Your task to perform on an android device: Open privacy settings Image 0: 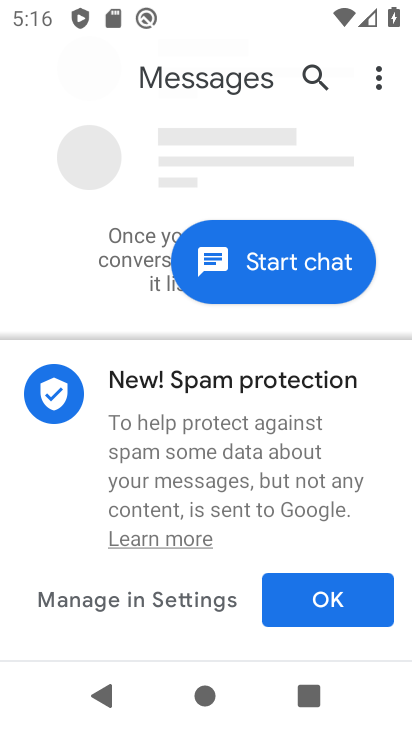
Step 0: press home button
Your task to perform on an android device: Open privacy settings Image 1: 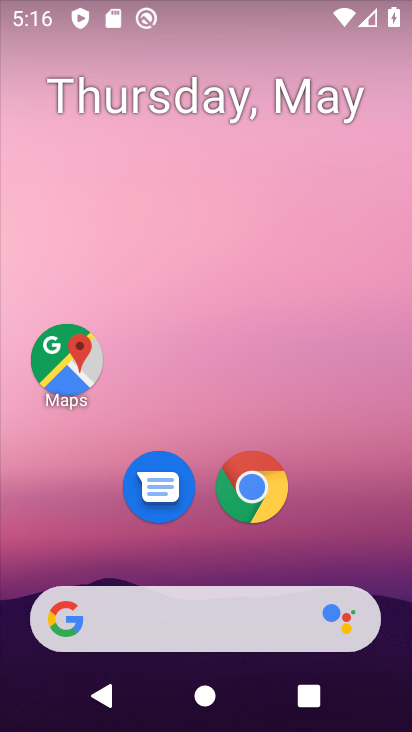
Step 1: drag from (308, 527) to (309, 66)
Your task to perform on an android device: Open privacy settings Image 2: 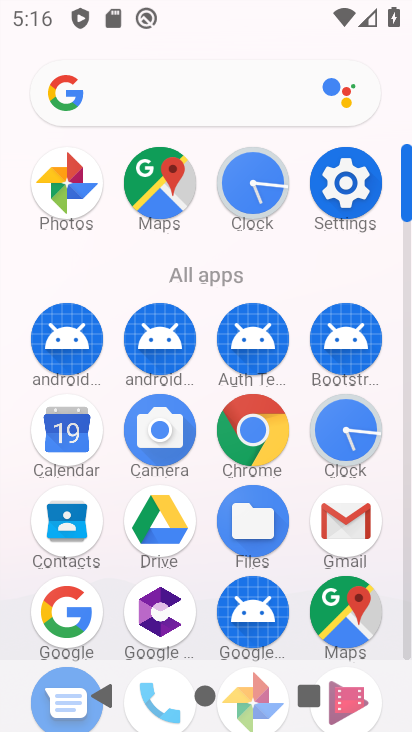
Step 2: click (339, 180)
Your task to perform on an android device: Open privacy settings Image 3: 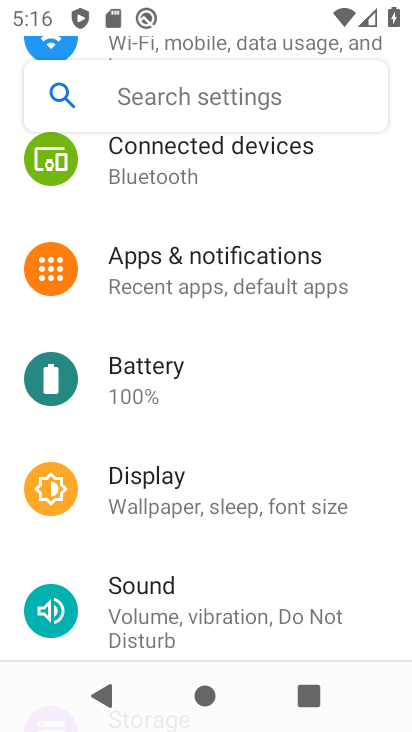
Step 3: drag from (238, 569) to (254, 110)
Your task to perform on an android device: Open privacy settings Image 4: 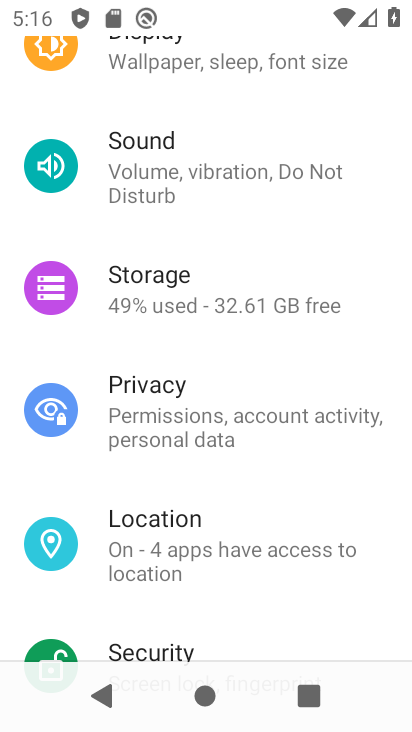
Step 4: click (241, 406)
Your task to perform on an android device: Open privacy settings Image 5: 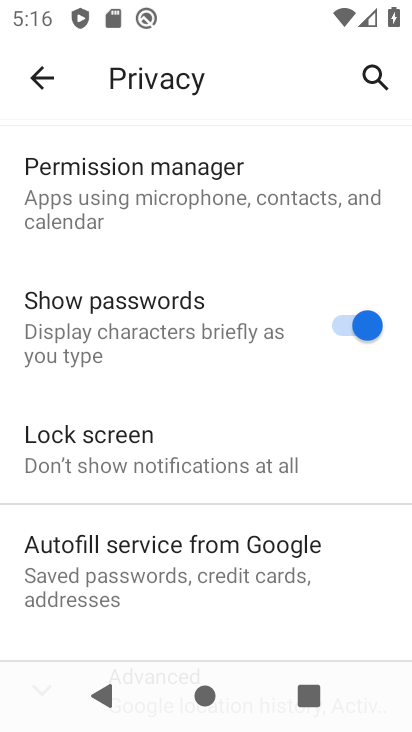
Step 5: task complete